Your task to perform on an android device: turn on bluetooth scan Image 0: 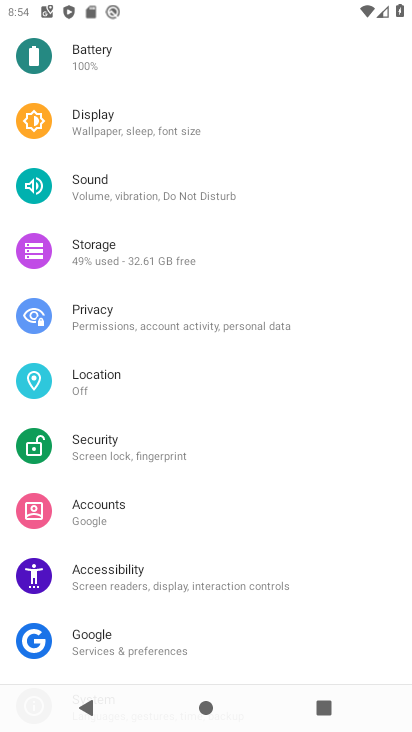
Step 0: press home button
Your task to perform on an android device: turn on bluetooth scan Image 1: 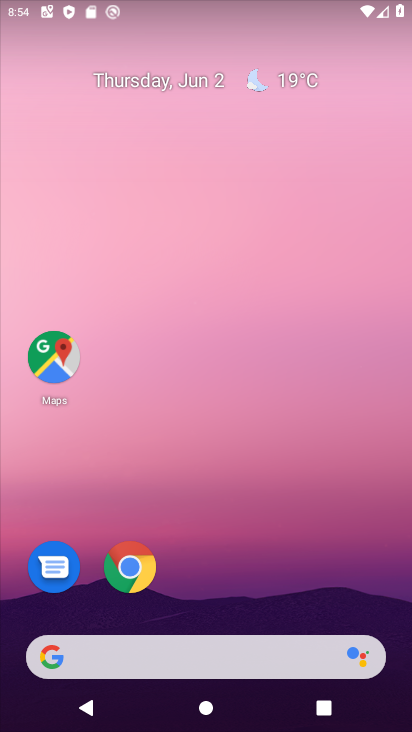
Step 1: drag from (218, 611) to (263, 99)
Your task to perform on an android device: turn on bluetooth scan Image 2: 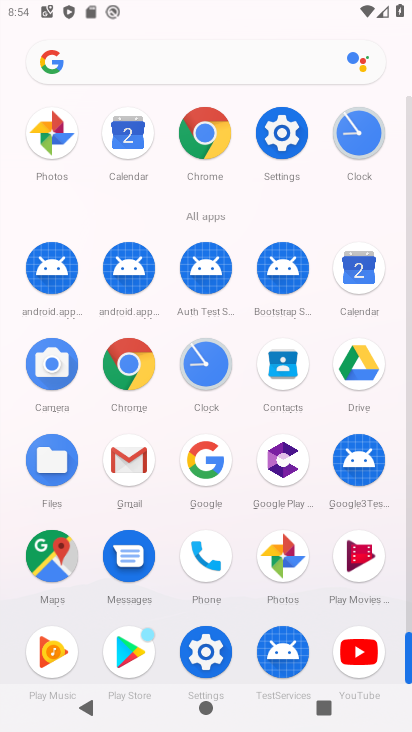
Step 2: click (284, 129)
Your task to perform on an android device: turn on bluetooth scan Image 3: 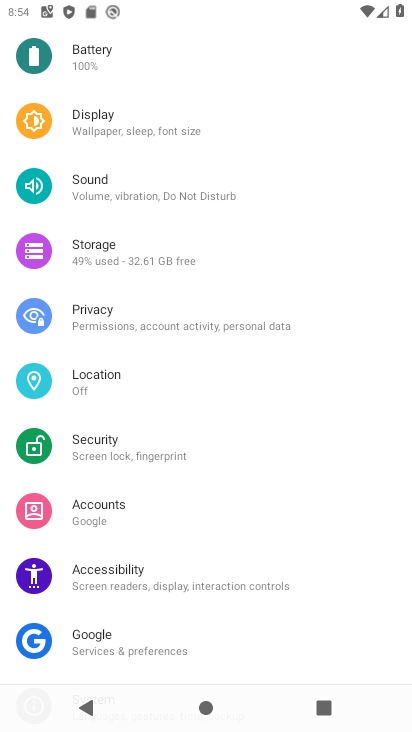
Step 3: click (163, 383)
Your task to perform on an android device: turn on bluetooth scan Image 4: 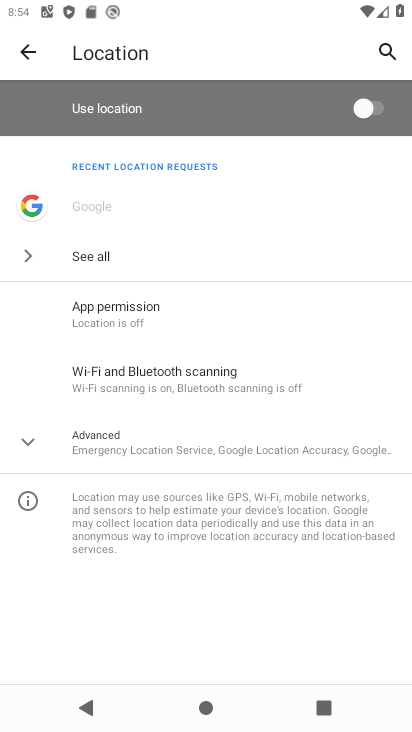
Step 4: click (141, 381)
Your task to perform on an android device: turn on bluetooth scan Image 5: 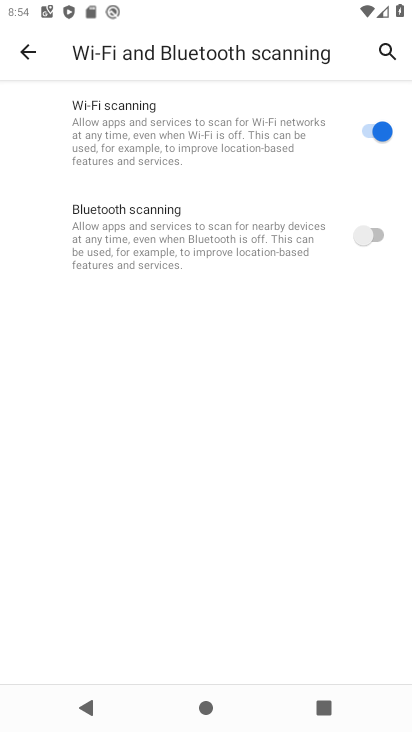
Step 5: click (364, 233)
Your task to perform on an android device: turn on bluetooth scan Image 6: 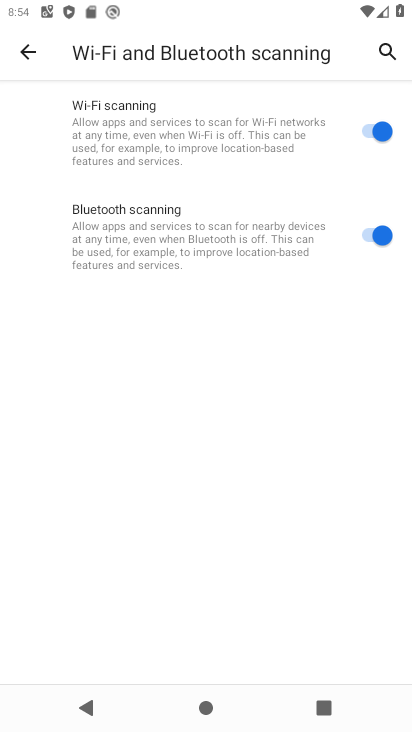
Step 6: task complete